Your task to perform on an android device: Open Google Chrome and open the bookmarks view Image 0: 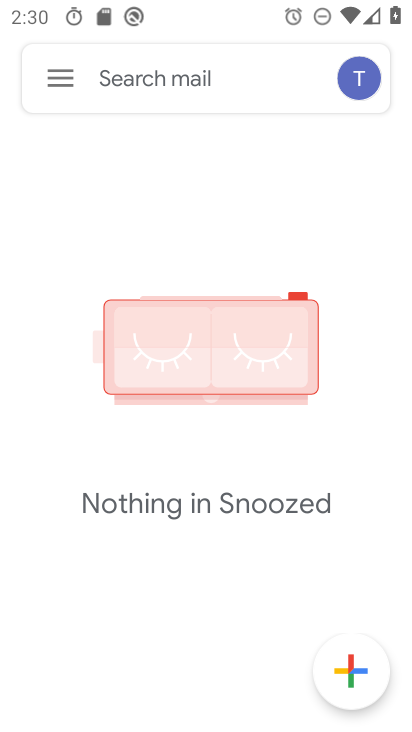
Step 0: press home button
Your task to perform on an android device: Open Google Chrome and open the bookmarks view Image 1: 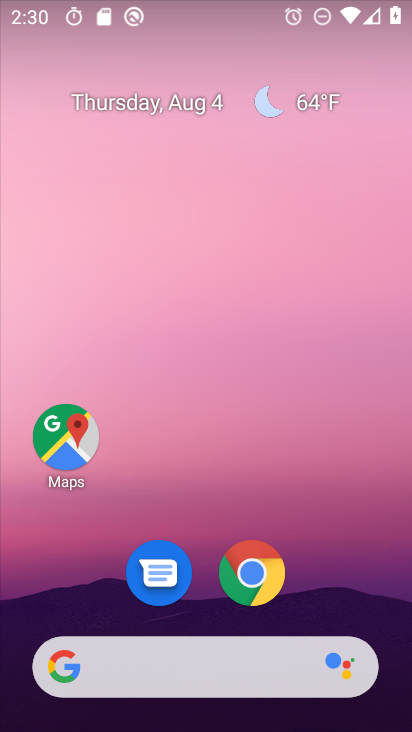
Step 1: drag from (327, 581) to (322, 107)
Your task to perform on an android device: Open Google Chrome and open the bookmarks view Image 2: 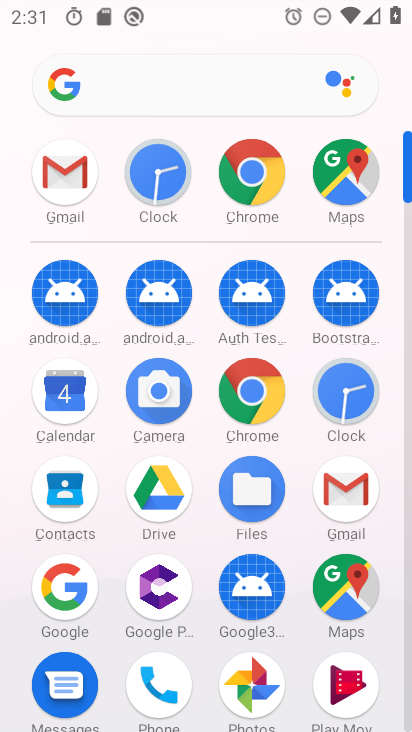
Step 2: click (251, 389)
Your task to perform on an android device: Open Google Chrome and open the bookmarks view Image 3: 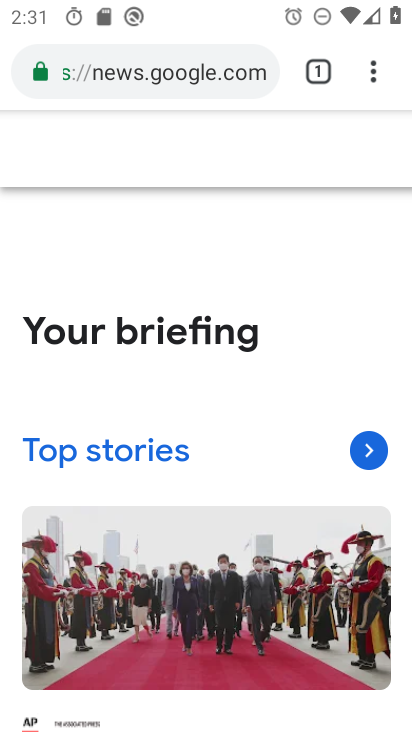
Step 3: task complete